Your task to perform on an android device: Open calendar and show me the third week of next month Image 0: 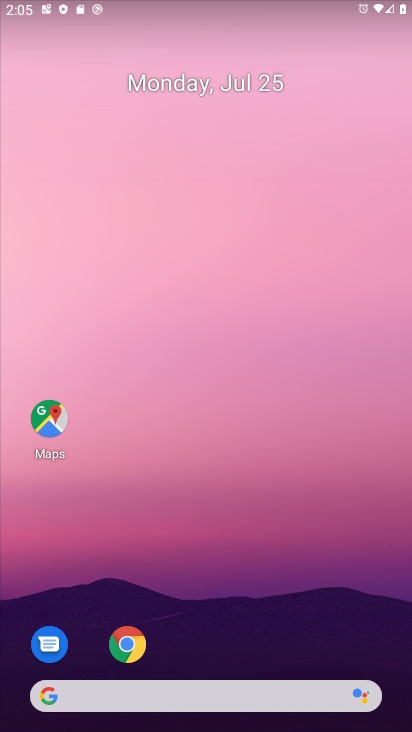
Step 0: click (190, 59)
Your task to perform on an android device: Open calendar and show me the third week of next month Image 1: 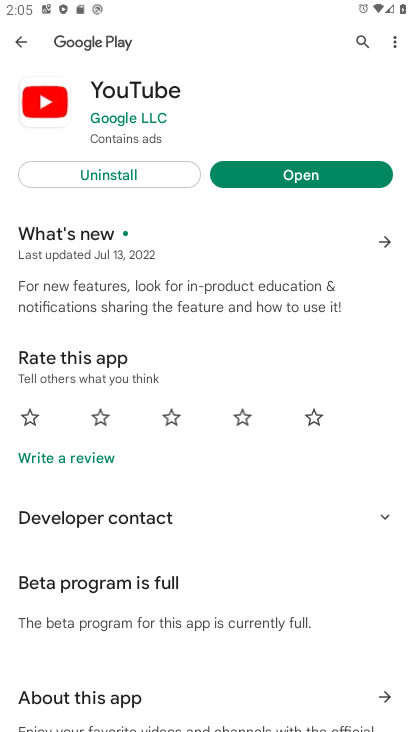
Step 1: press home button
Your task to perform on an android device: Open calendar and show me the third week of next month Image 2: 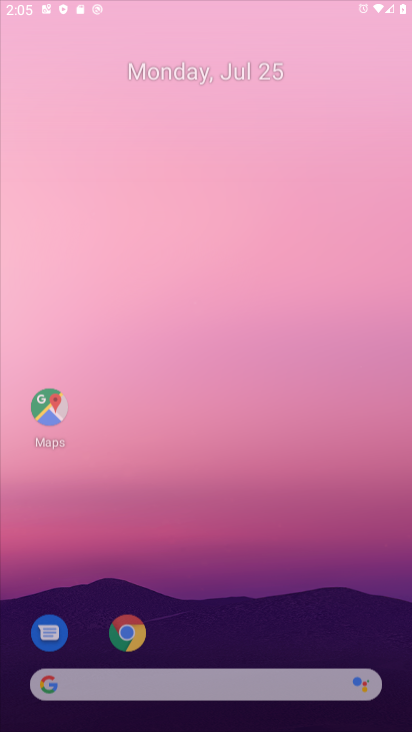
Step 2: drag from (392, 731) to (245, 16)
Your task to perform on an android device: Open calendar and show me the third week of next month Image 3: 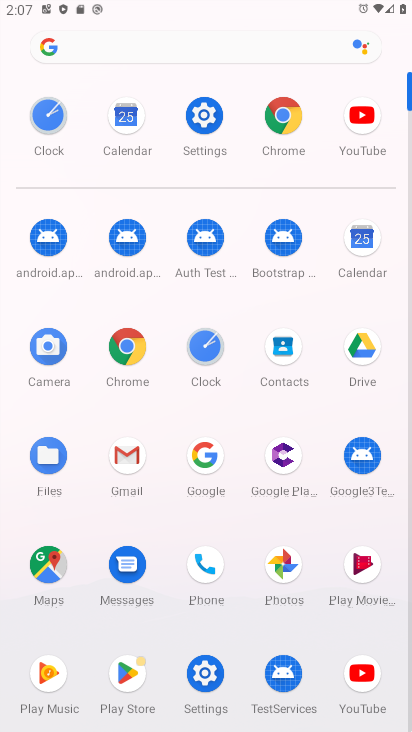
Step 3: click (354, 241)
Your task to perform on an android device: Open calendar and show me the third week of next month Image 4: 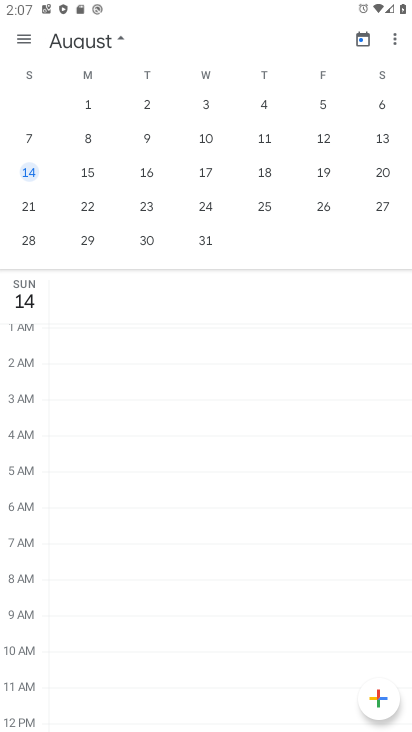
Step 4: drag from (385, 155) to (13, 153)
Your task to perform on an android device: Open calendar and show me the third week of next month Image 5: 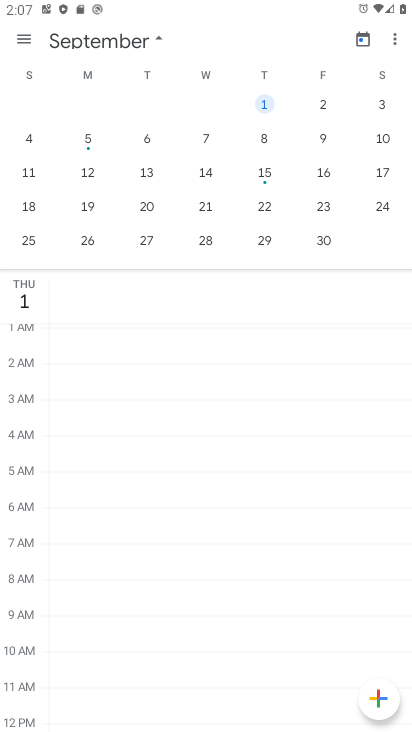
Step 5: click (30, 206)
Your task to perform on an android device: Open calendar and show me the third week of next month Image 6: 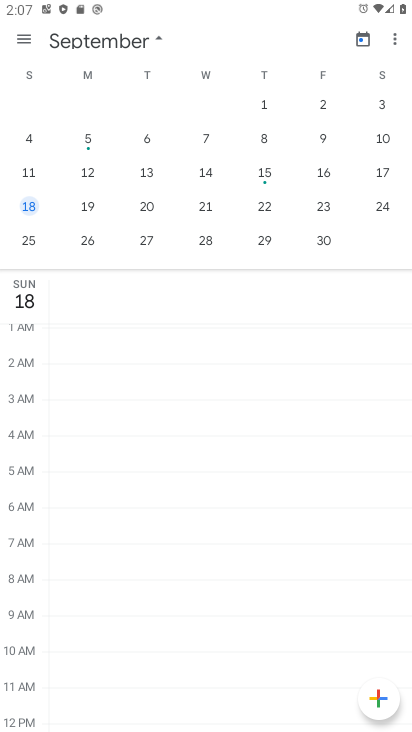
Step 6: task complete